Your task to perform on an android device: When is my next appointment? Image 0: 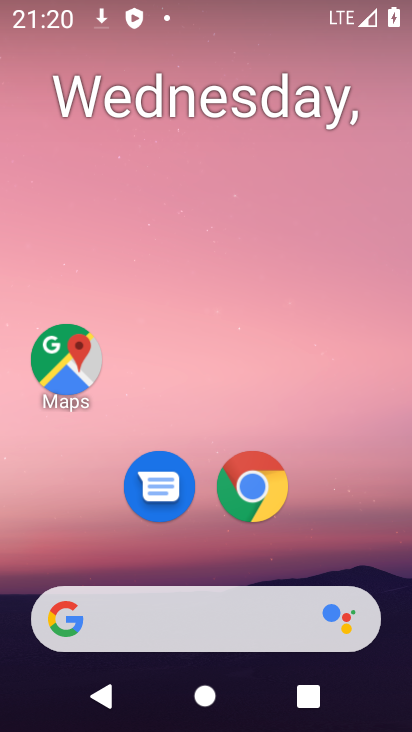
Step 0: drag from (166, 548) to (242, 39)
Your task to perform on an android device: When is my next appointment? Image 1: 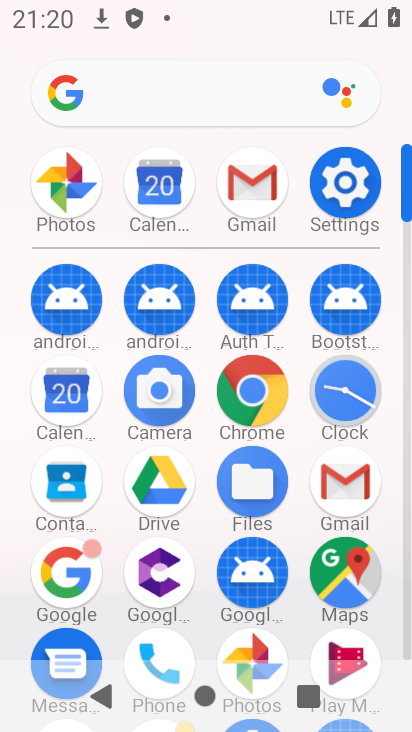
Step 1: click (73, 399)
Your task to perform on an android device: When is my next appointment? Image 2: 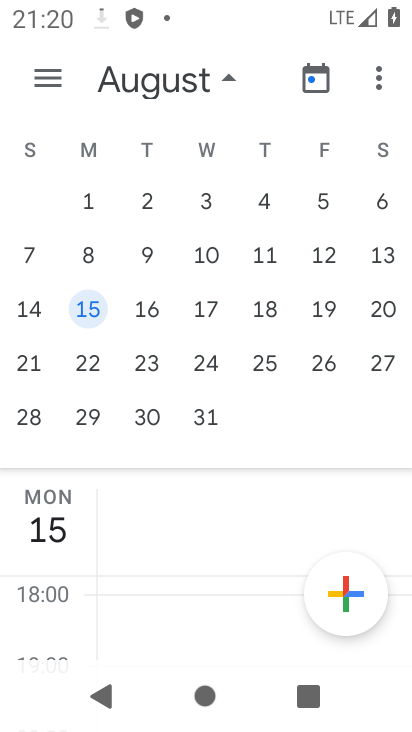
Step 2: drag from (28, 305) to (401, 280)
Your task to perform on an android device: When is my next appointment? Image 3: 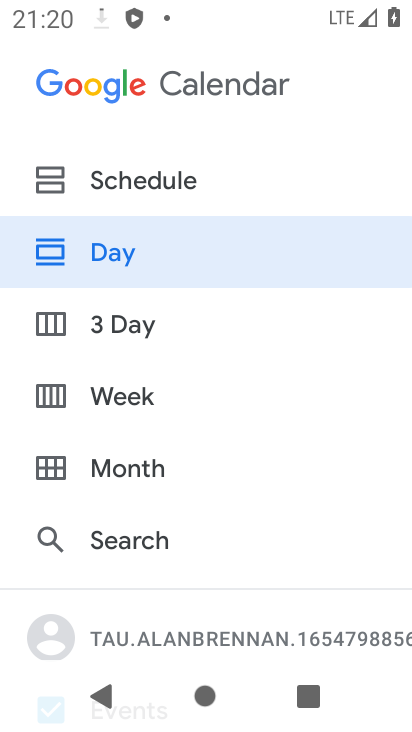
Step 3: drag from (400, 351) to (4, 344)
Your task to perform on an android device: When is my next appointment? Image 4: 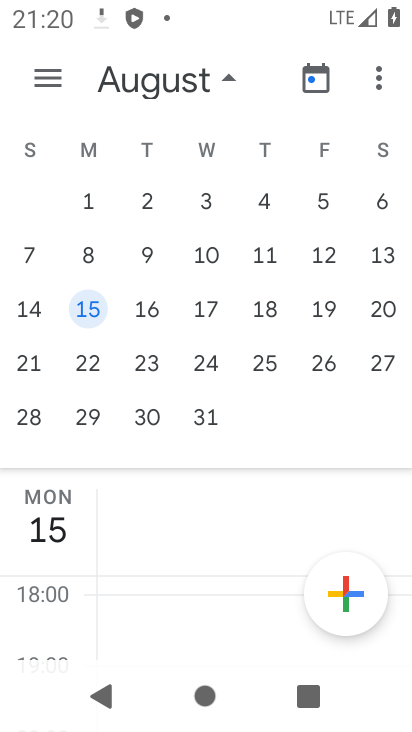
Step 4: drag from (31, 305) to (377, 283)
Your task to perform on an android device: When is my next appointment? Image 5: 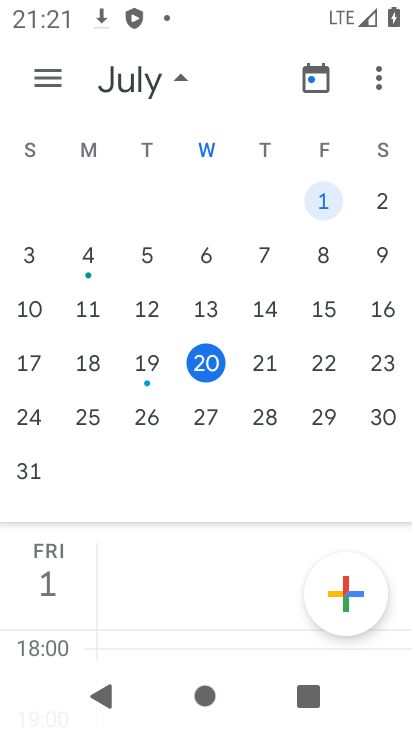
Step 5: click (204, 356)
Your task to perform on an android device: When is my next appointment? Image 6: 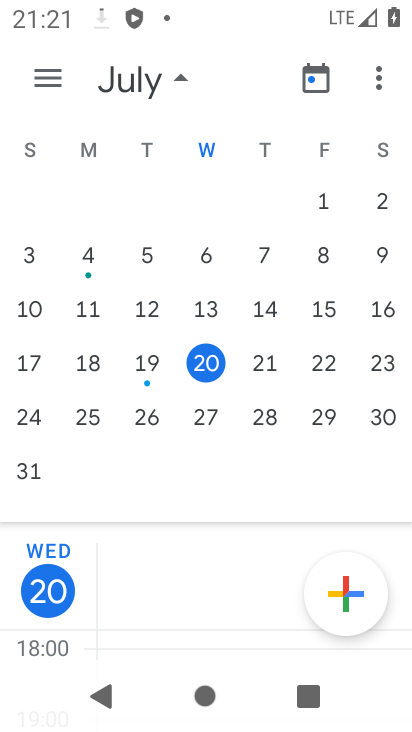
Step 6: drag from (174, 586) to (241, 223)
Your task to perform on an android device: When is my next appointment? Image 7: 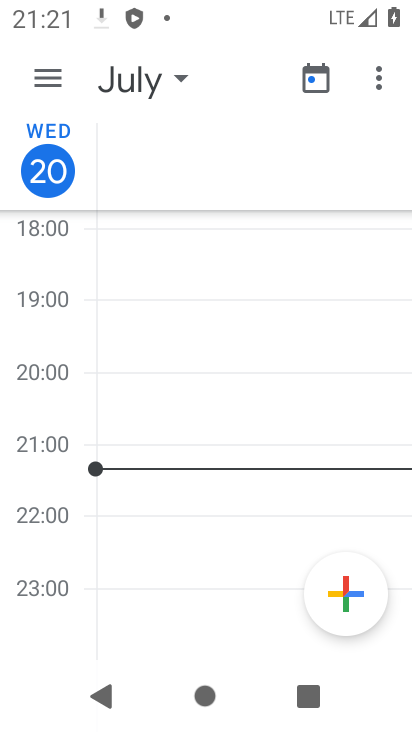
Step 7: click (17, 87)
Your task to perform on an android device: When is my next appointment? Image 8: 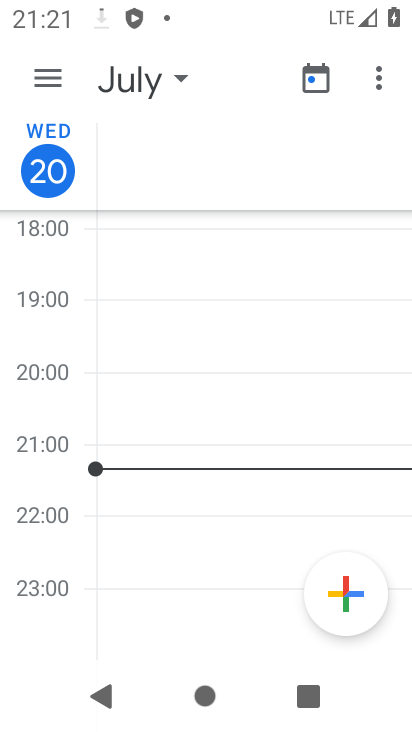
Step 8: click (44, 74)
Your task to perform on an android device: When is my next appointment? Image 9: 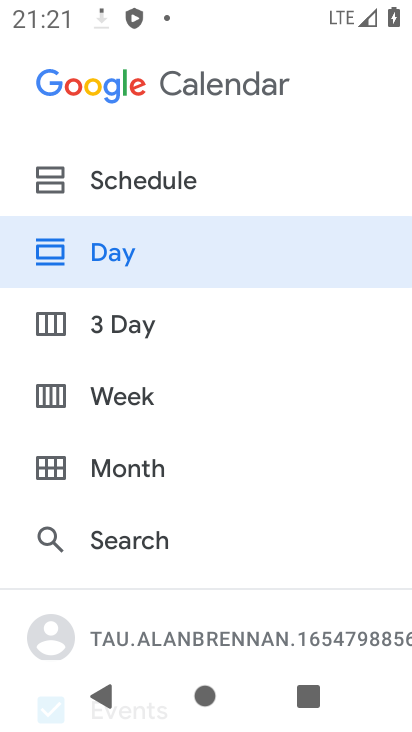
Step 9: click (131, 186)
Your task to perform on an android device: When is my next appointment? Image 10: 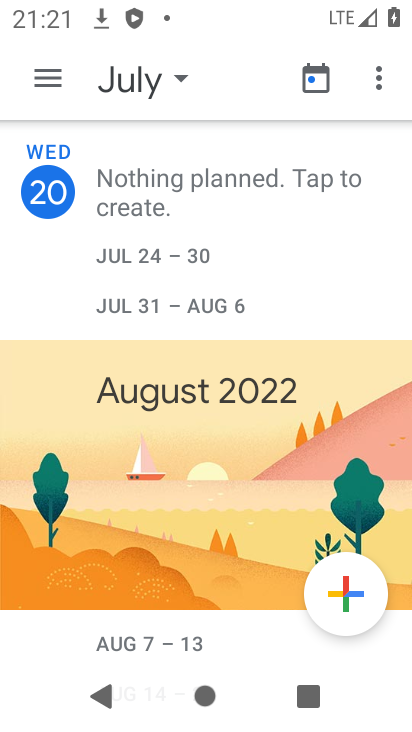
Step 10: task complete